Your task to perform on an android device: Open Chrome and go to the settings page Image 0: 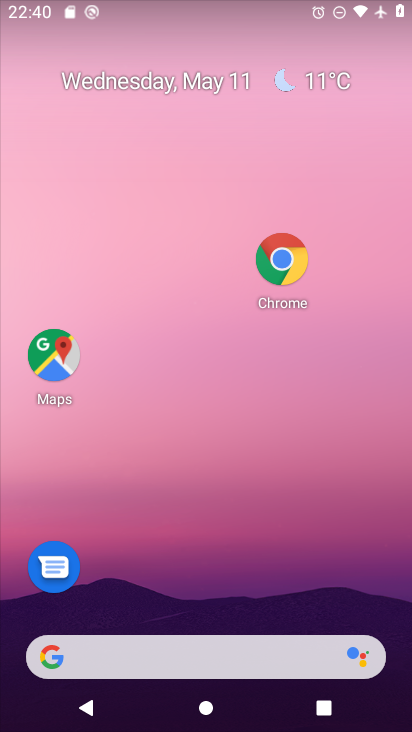
Step 0: press home button
Your task to perform on an android device: Open Chrome and go to the settings page Image 1: 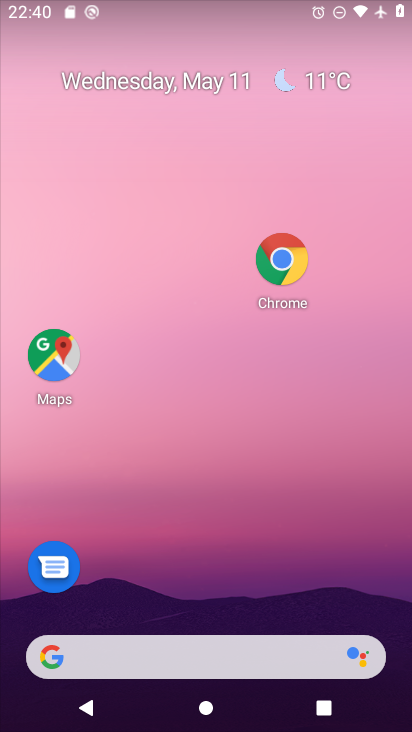
Step 1: click (291, 264)
Your task to perform on an android device: Open Chrome and go to the settings page Image 2: 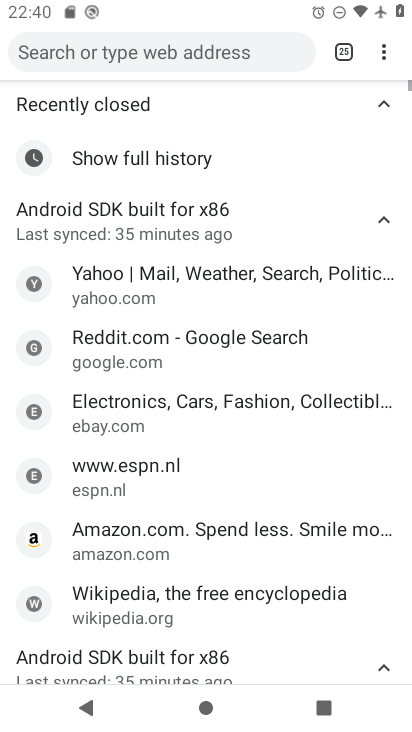
Step 2: task complete